Your task to perform on an android device: Search for Italian restaurants on Maps Image 0: 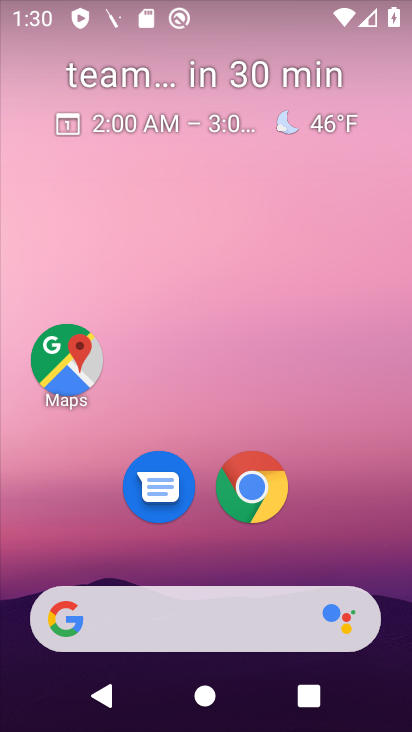
Step 0: click (47, 357)
Your task to perform on an android device: Search for Italian restaurants on Maps Image 1: 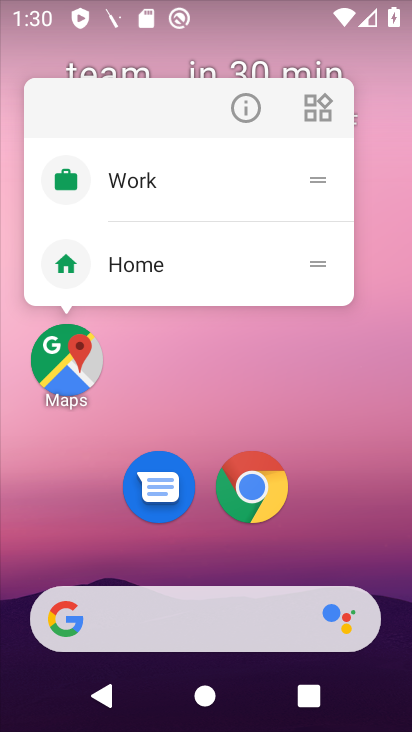
Step 1: click (51, 366)
Your task to perform on an android device: Search for Italian restaurants on Maps Image 2: 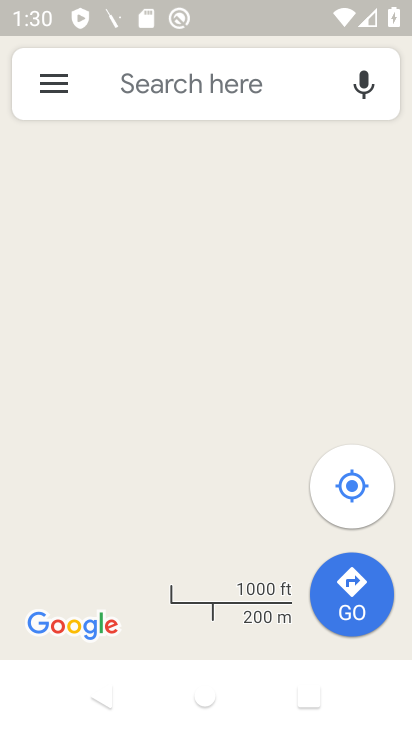
Step 2: click (269, 86)
Your task to perform on an android device: Search for Italian restaurants on Maps Image 3: 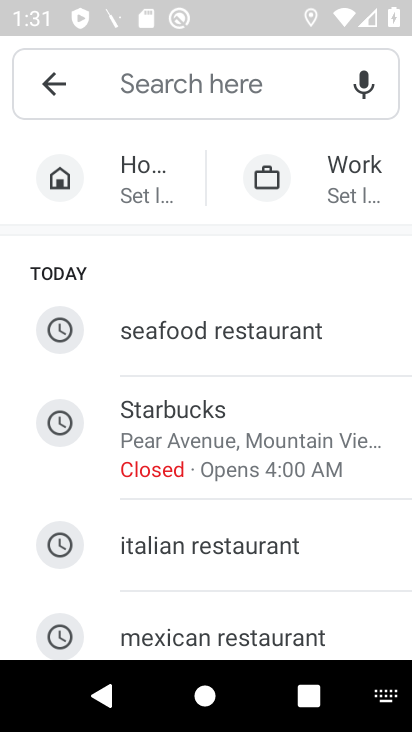
Step 3: type "italian restaurants"
Your task to perform on an android device: Search for Italian restaurants on Maps Image 4: 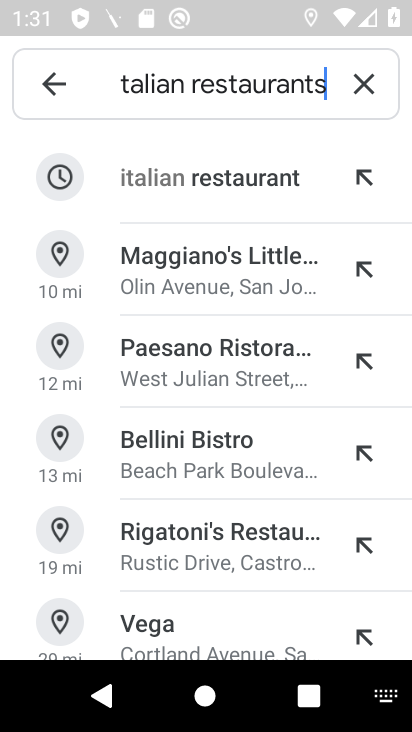
Step 4: press enter
Your task to perform on an android device: Search for Italian restaurants on Maps Image 5: 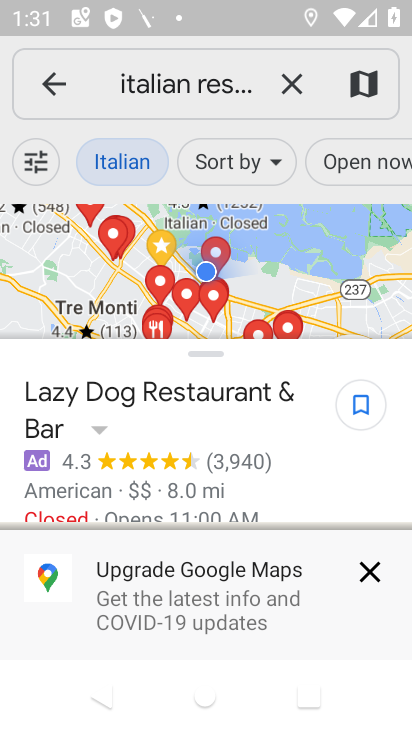
Step 5: task complete